Your task to perform on an android device: remove spam from my inbox in the gmail app Image 0: 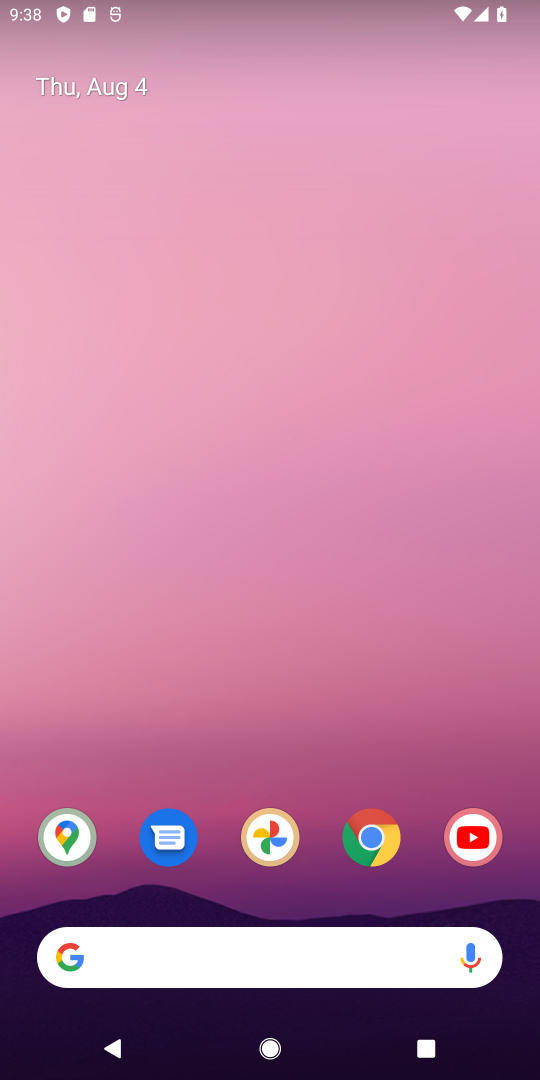
Step 0: drag from (421, 854) to (212, 4)
Your task to perform on an android device: remove spam from my inbox in the gmail app Image 1: 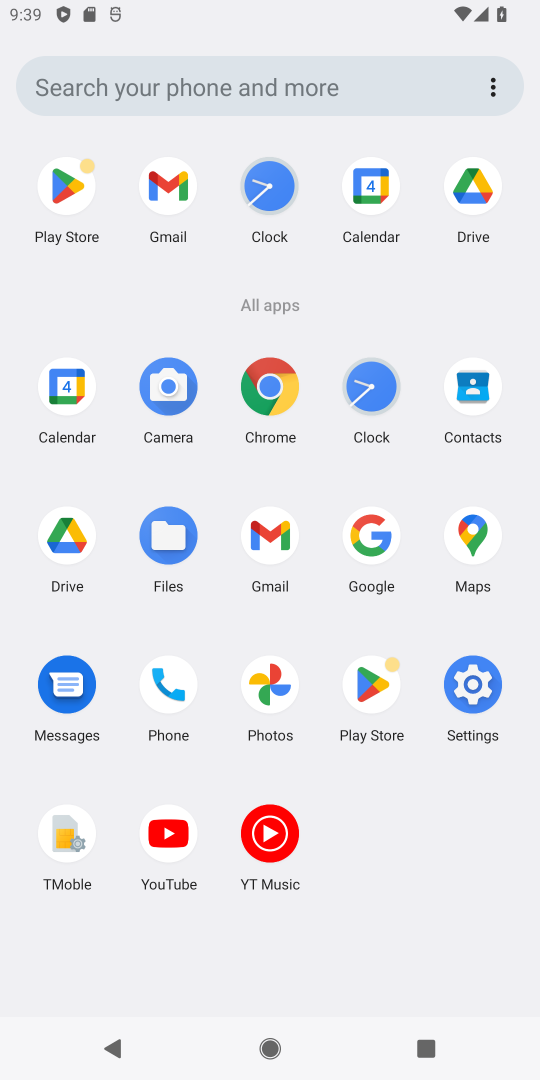
Step 1: click (261, 535)
Your task to perform on an android device: remove spam from my inbox in the gmail app Image 2: 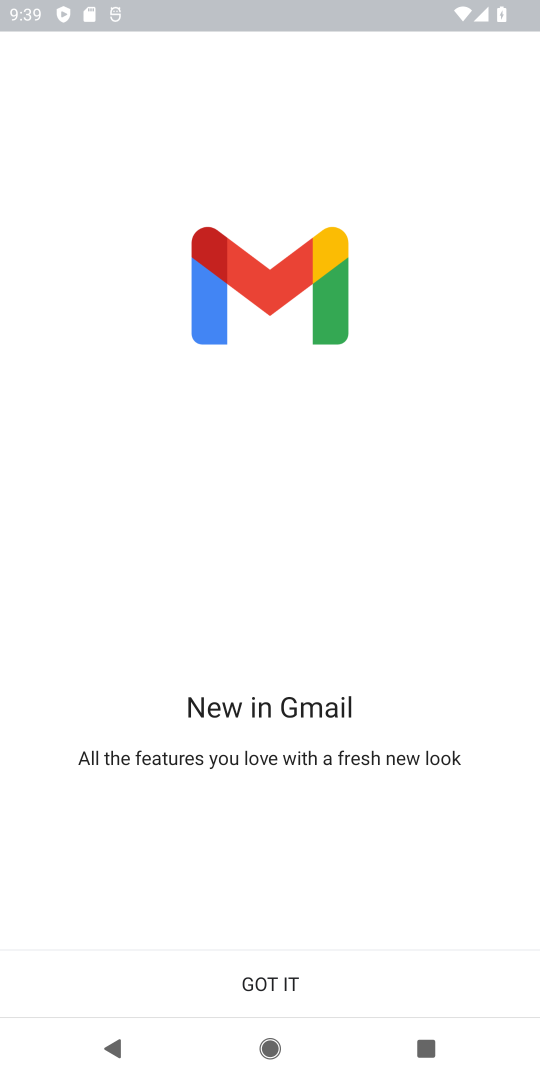
Step 2: click (262, 990)
Your task to perform on an android device: remove spam from my inbox in the gmail app Image 3: 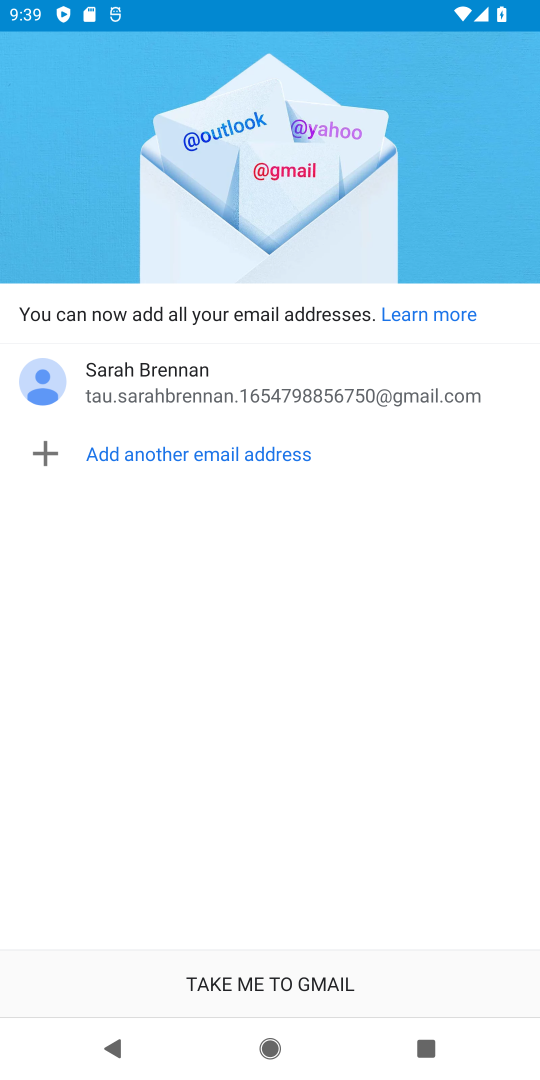
Step 3: click (246, 979)
Your task to perform on an android device: remove spam from my inbox in the gmail app Image 4: 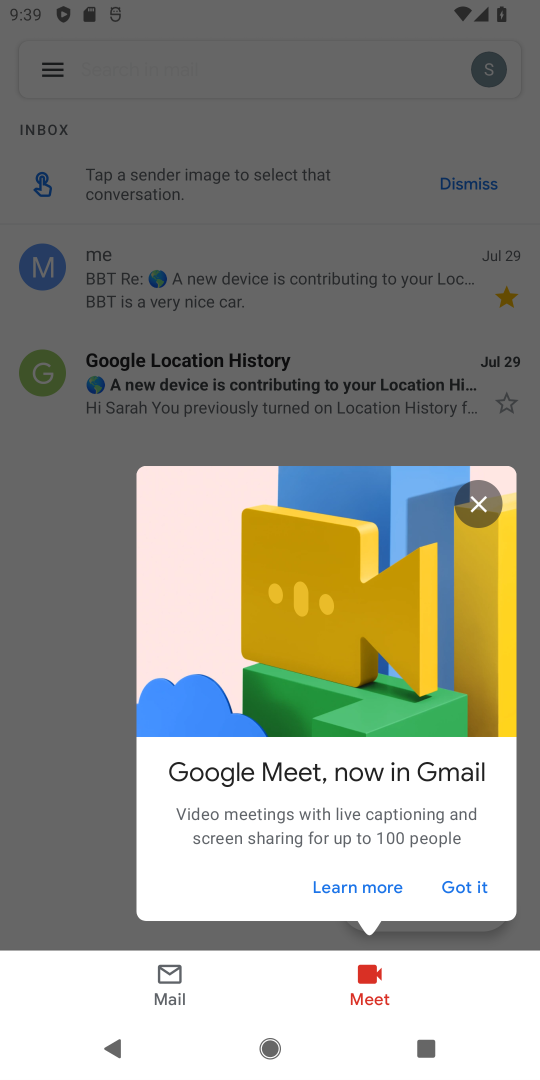
Step 4: click (467, 899)
Your task to perform on an android device: remove spam from my inbox in the gmail app Image 5: 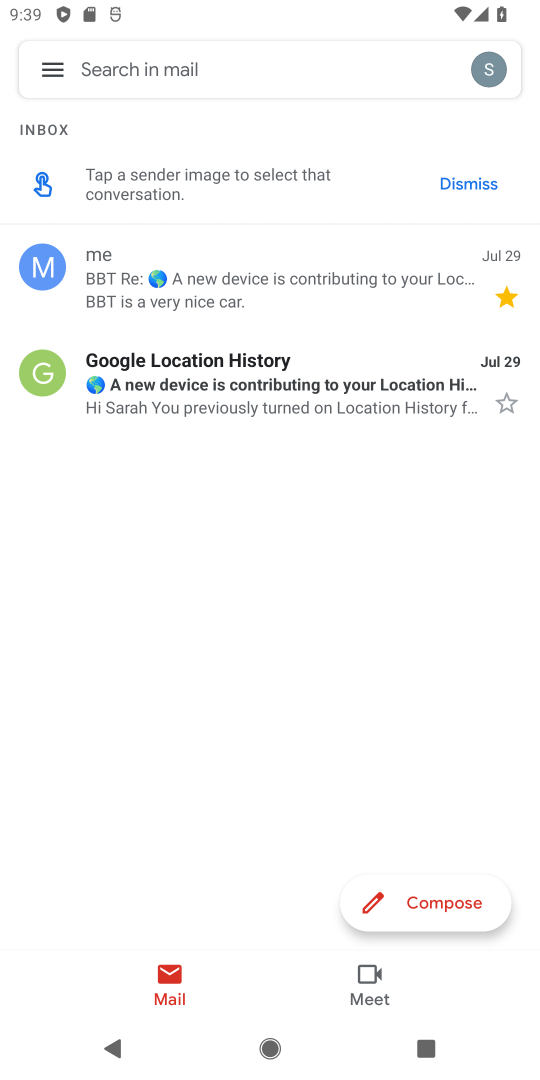
Step 5: task complete